Your task to perform on an android device: empty trash in the gmail app Image 0: 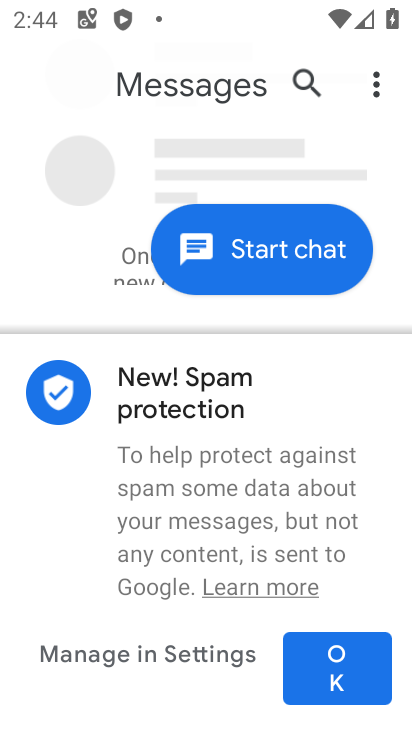
Step 0: press home button
Your task to perform on an android device: empty trash in the gmail app Image 1: 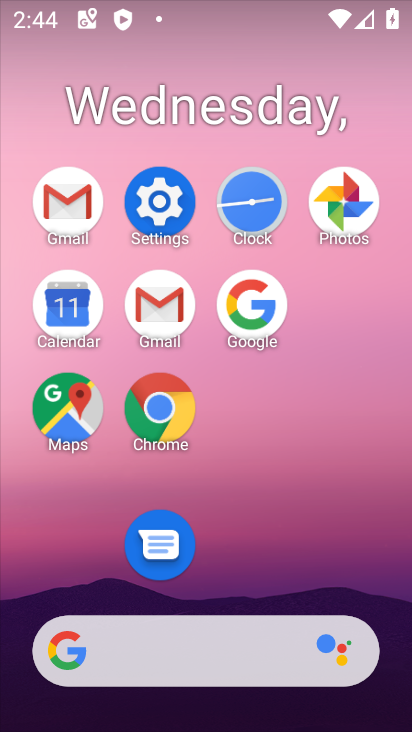
Step 1: click (174, 306)
Your task to perform on an android device: empty trash in the gmail app Image 2: 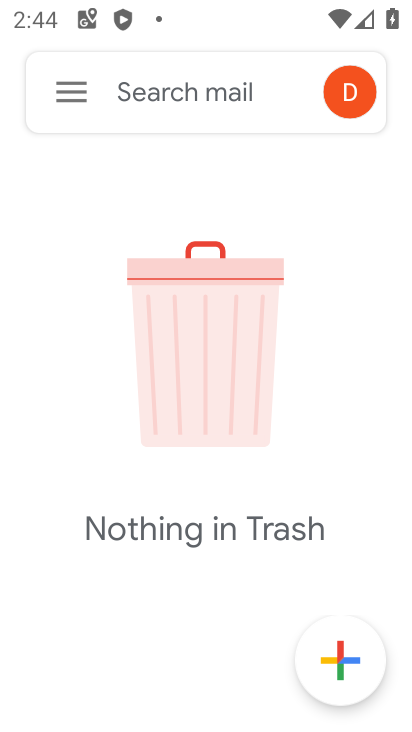
Step 2: task complete